Your task to perform on an android device: When is my next appointment? Image 0: 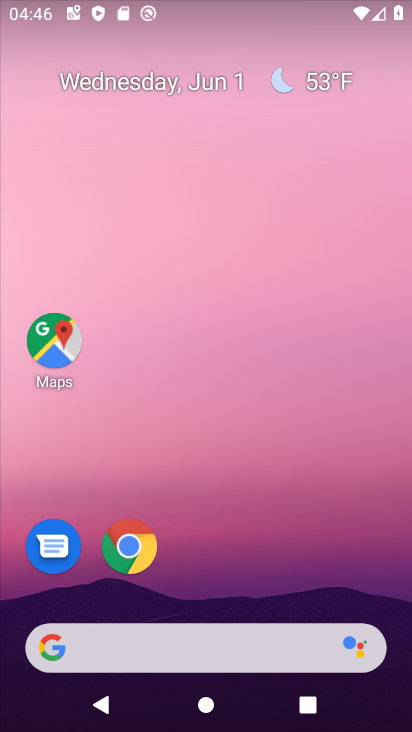
Step 0: click (254, 434)
Your task to perform on an android device: When is my next appointment? Image 1: 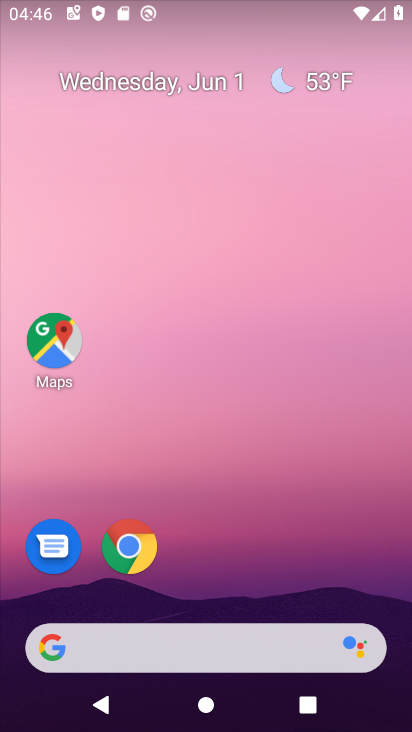
Step 1: drag from (194, 243) to (191, 142)
Your task to perform on an android device: When is my next appointment? Image 2: 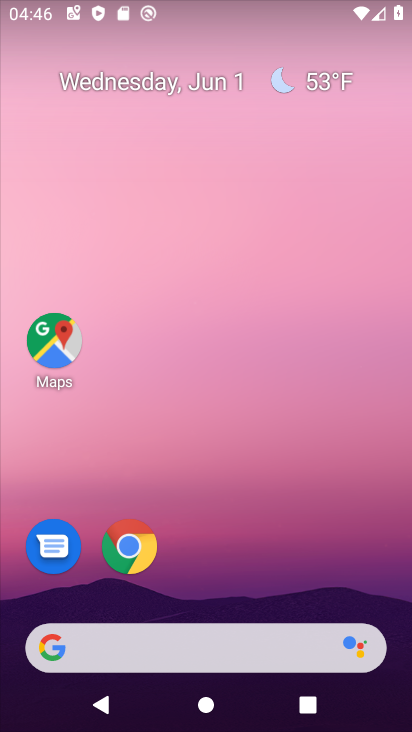
Step 2: drag from (232, 593) to (190, 194)
Your task to perform on an android device: When is my next appointment? Image 3: 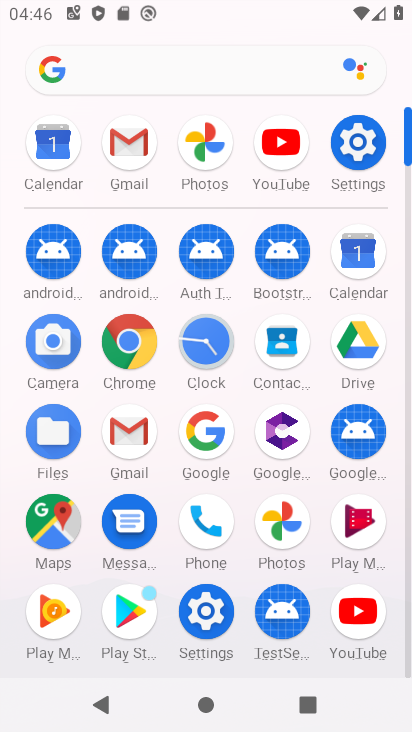
Step 3: click (351, 254)
Your task to perform on an android device: When is my next appointment? Image 4: 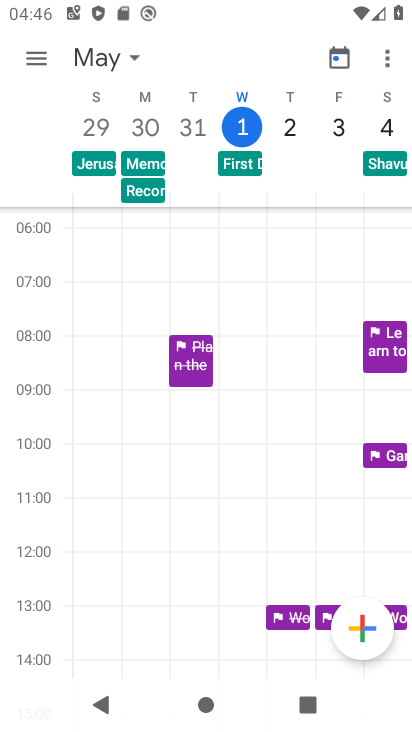
Step 4: task complete